Your task to perform on an android device: Show me recent news Image 0: 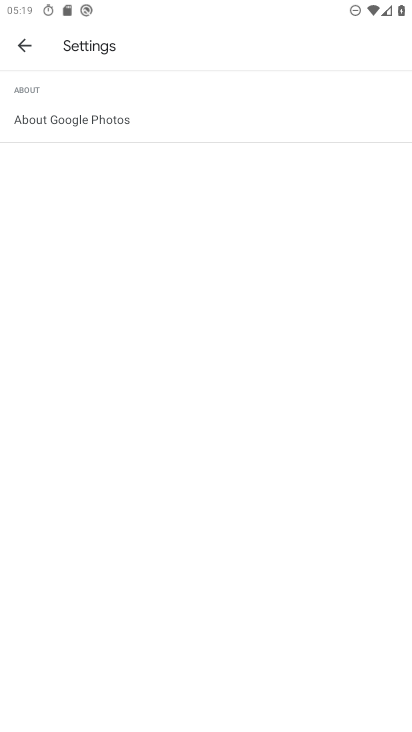
Step 0: press home button
Your task to perform on an android device: Show me recent news Image 1: 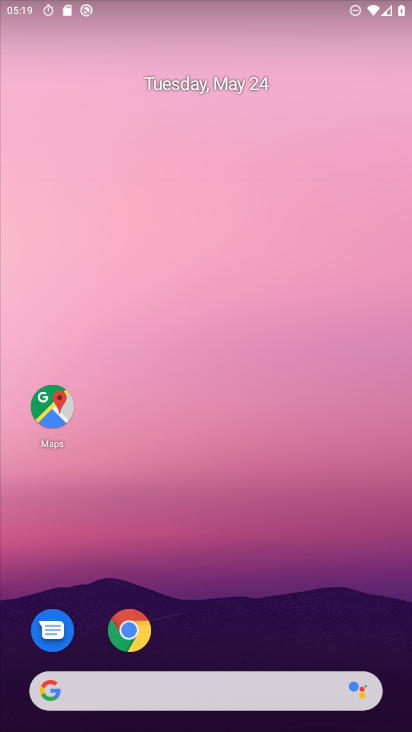
Step 1: click (191, 633)
Your task to perform on an android device: Show me recent news Image 2: 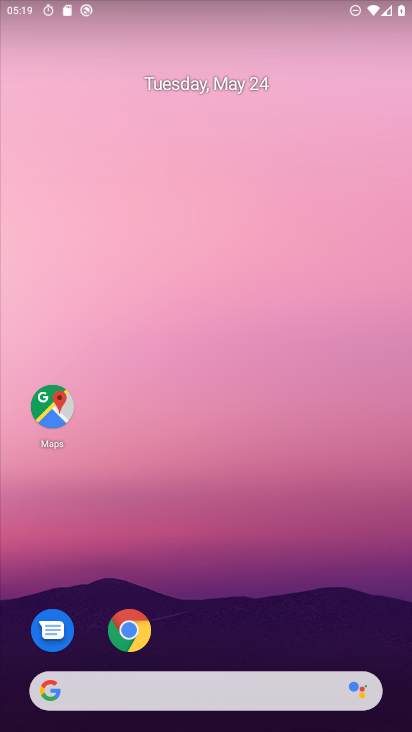
Step 2: drag from (196, 653) to (274, 63)
Your task to perform on an android device: Show me recent news Image 3: 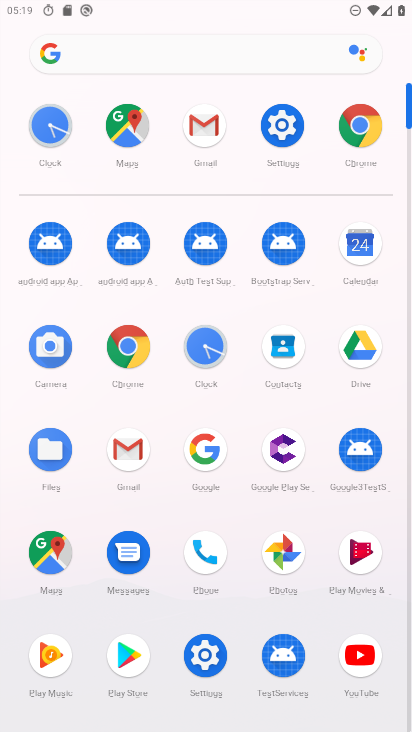
Step 3: click (122, 344)
Your task to perform on an android device: Show me recent news Image 4: 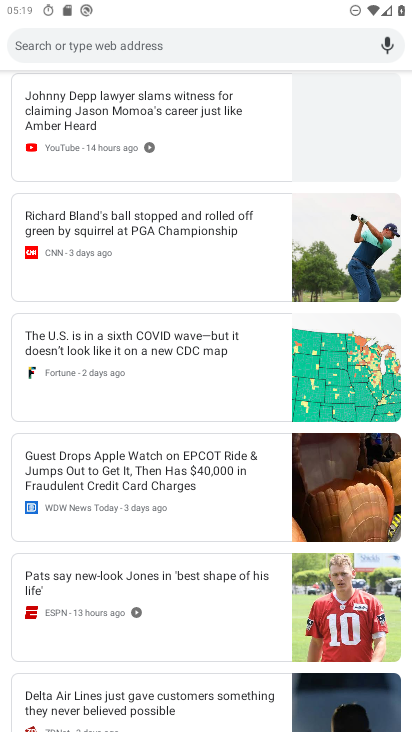
Step 4: task complete